Your task to perform on an android device: open the mobile data screen to see how much data has been used Image 0: 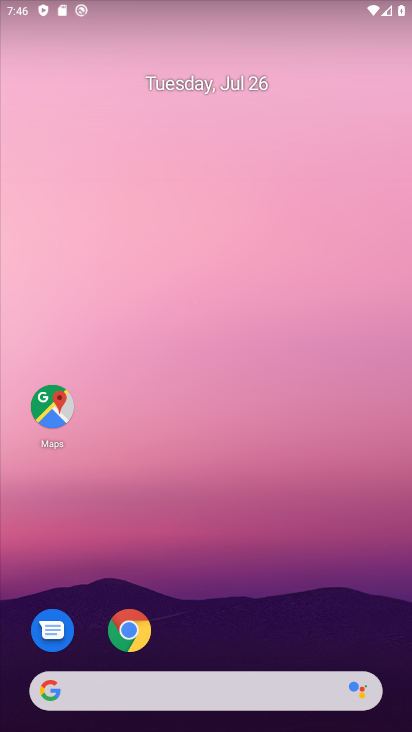
Step 0: drag from (299, 661) to (309, 104)
Your task to perform on an android device: open the mobile data screen to see how much data has been used Image 1: 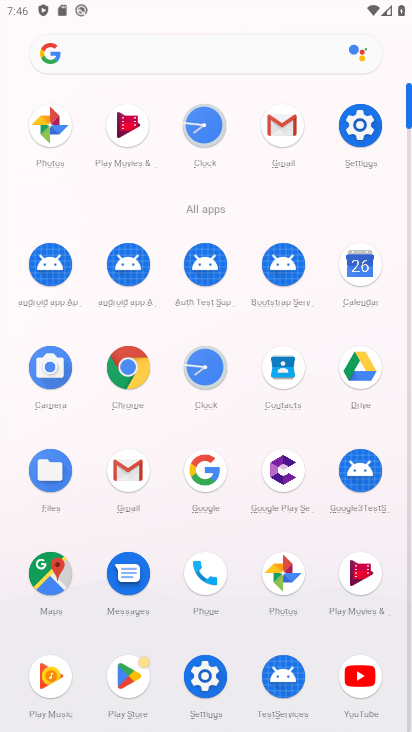
Step 1: click (351, 135)
Your task to perform on an android device: open the mobile data screen to see how much data has been used Image 2: 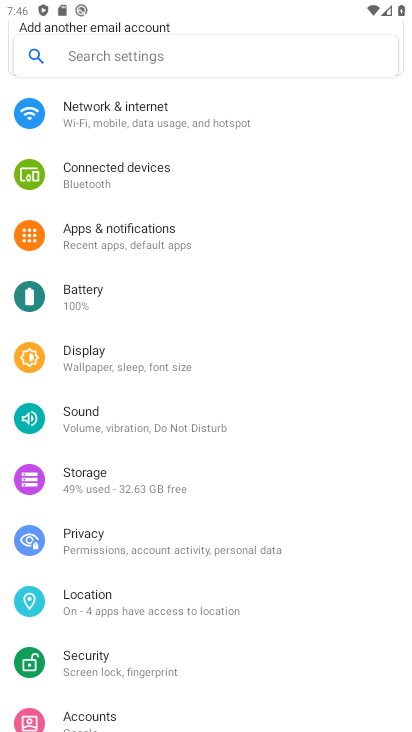
Step 2: click (254, 137)
Your task to perform on an android device: open the mobile data screen to see how much data has been used Image 3: 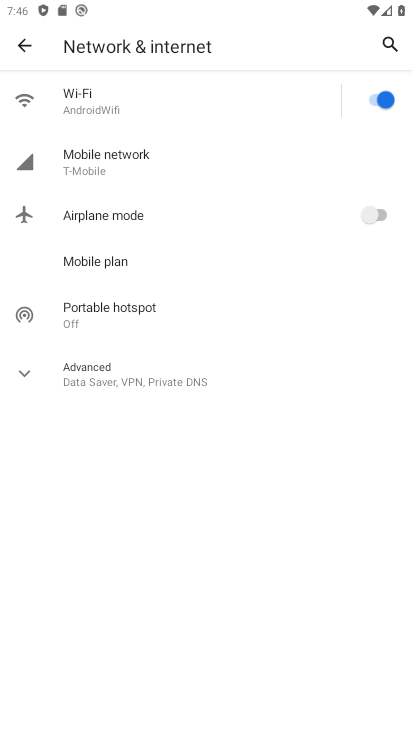
Step 3: click (90, 169)
Your task to perform on an android device: open the mobile data screen to see how much data has been used Image 4: 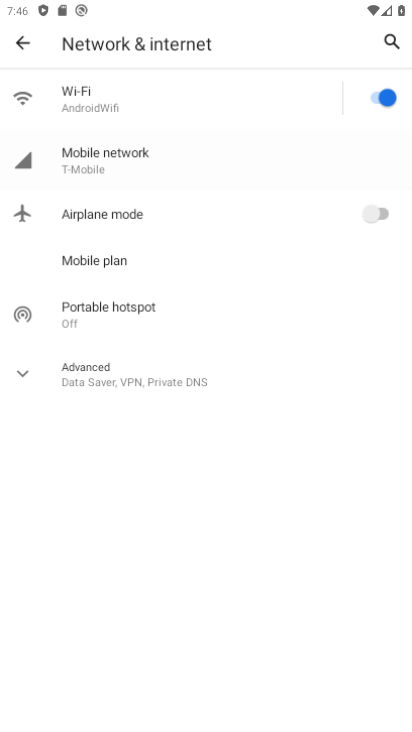
Step 4: task complete